Your task to perform on an android device: Open Google Chrome and click the shortcut for Amazon.com Image 0: 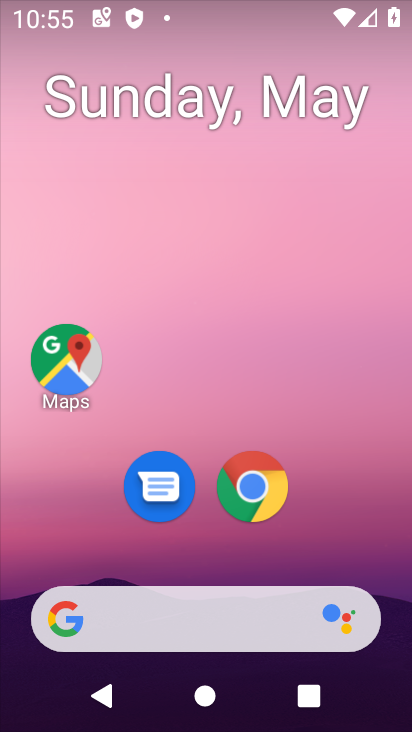
Step 0: click (250, 498)
Your task to perform on an android device: Open Google Chrome and click the shortcut for Amazon.com Image 1: 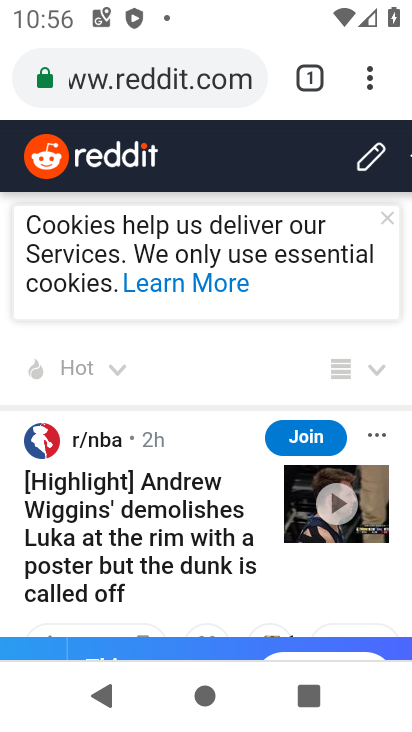
Step 1: press back button
Your task to perform on an android device: Open Google Chrome and click the shortcut for Amazon.com Image 2: 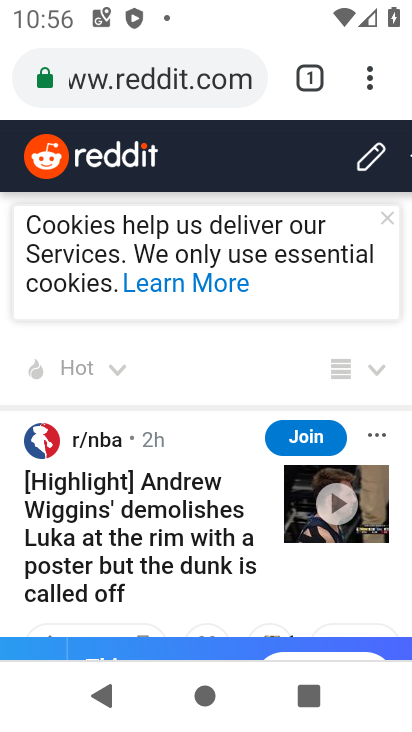
Step 2: press back button
Your task to perform on an android device: Open Google Chrome and click the shortcut for Amazon.com Image 3: 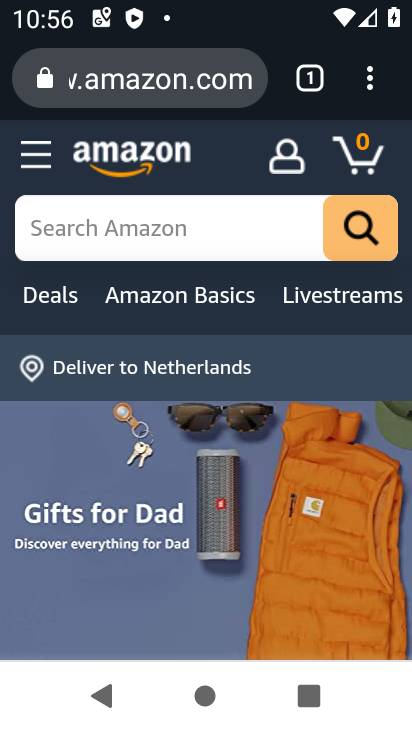
Step 3: press back button
Your task to perform on an android device: Open Google Chrome and click the shortcut for Amazon.com Image 4: 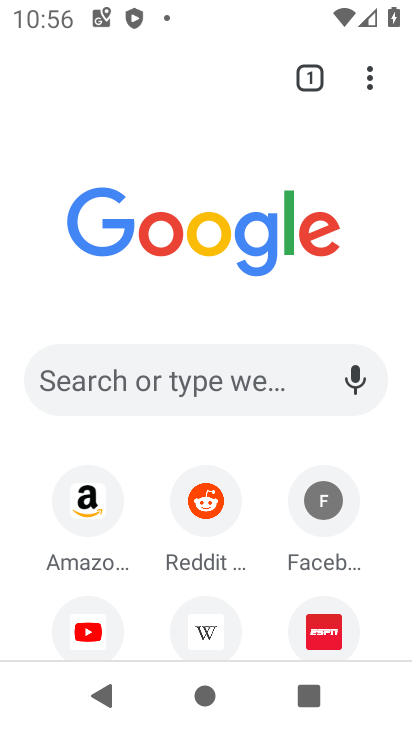
Step 4: click (93, 516)
Your task to perform on an android device: Open Google Chrome and click the shortcut for Amazon.com Image 5: 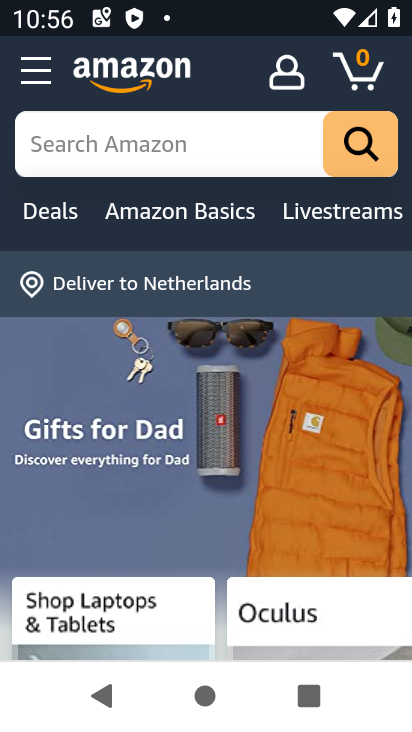
Step 5: task complete